Your task to perform on an android device: Go to eBay Image 0: 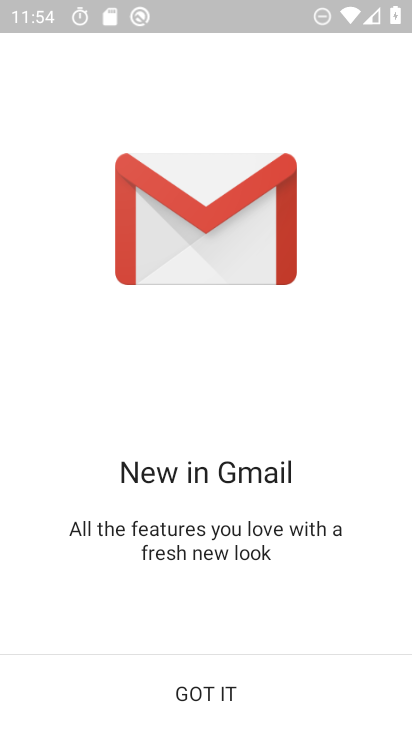
Step 0: press back button
Your task to perform on an android device: Go to eBay Image 1: 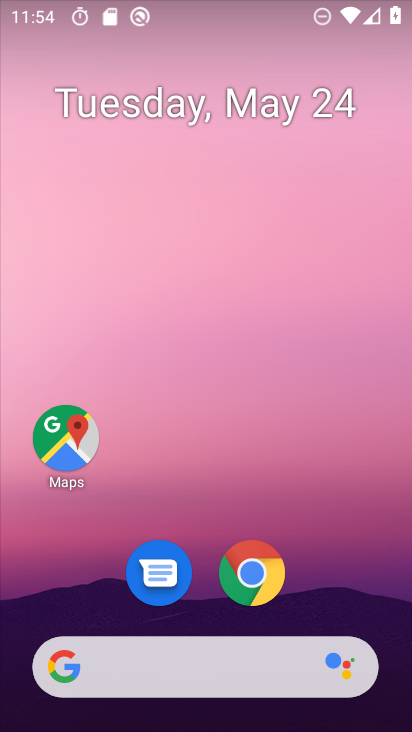
Step 1: drag from (320, 594) to (289, 18)
Your task to perform on an android device: Go to eBay Image 2: 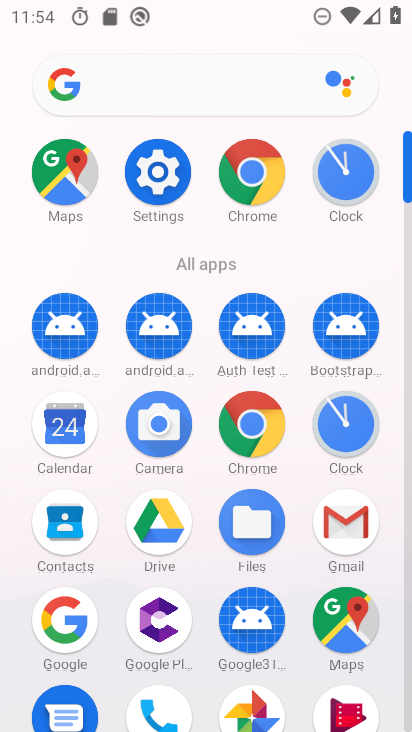
Step 2: click (247, 419)
Your task to perform on an android device: Go to eBay Image 3: 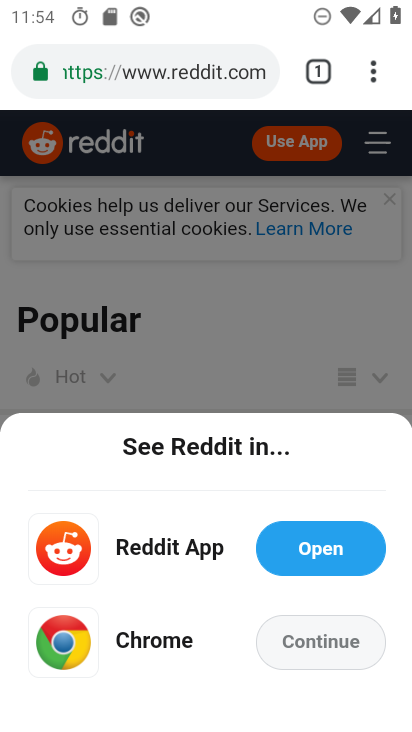
Step 3: click (174, 68)
Your task to perform on an android device: Go to eBay Image 4: 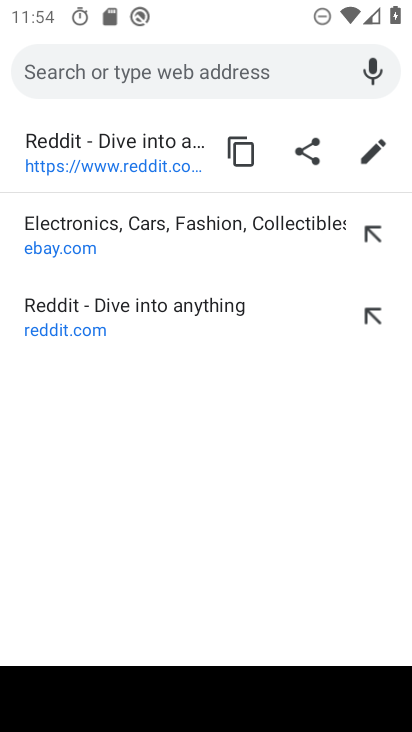
Step 4: click (116, 231)
Your task to perform on an android device: Go to eBay Image 5: 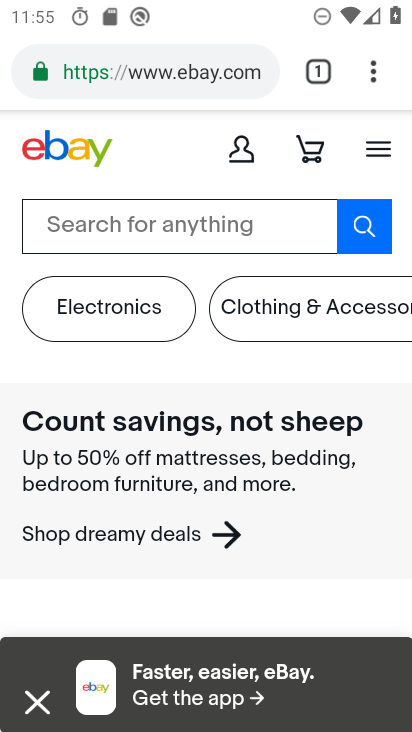
Step 5: task complete